Your task to perform on an android device: turn notification dots off Image 0: 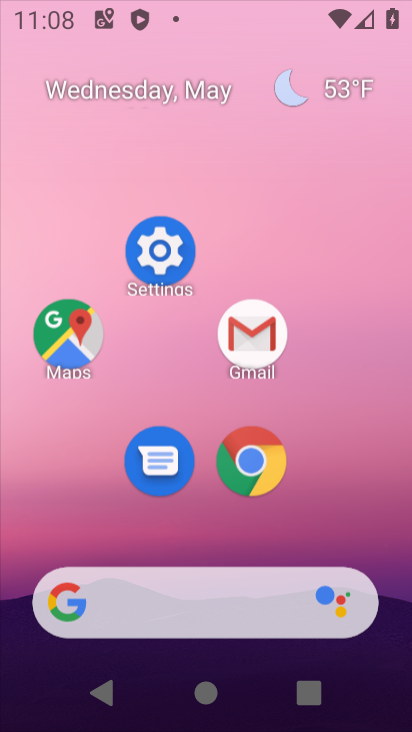
Step 0: click (226, 99)
Your task to perform on an android device: turn notification dots off Image 1: 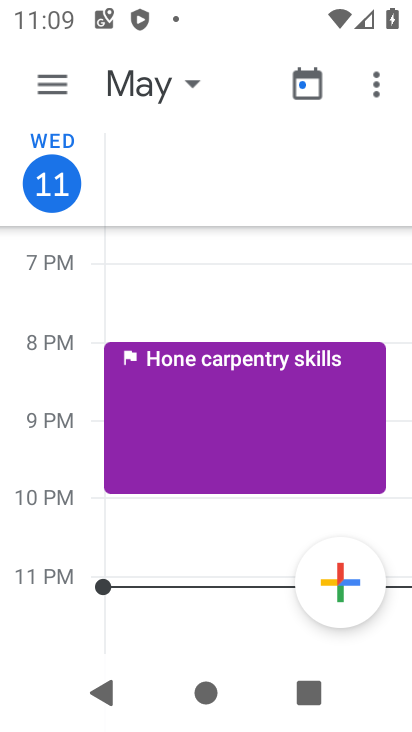
Step 1: drag from (232, 587) to (256, 146)
Your task to perform on an android device: turn notification dots off Image 2: 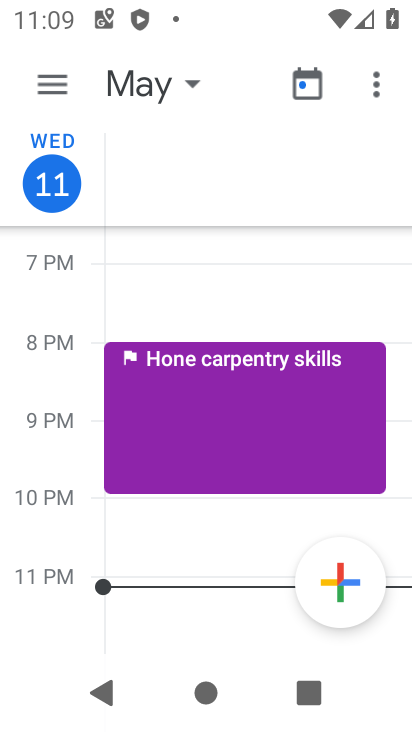
Step 2: press home button
Your task to perform on an android device: turn notification dots off Image 3: 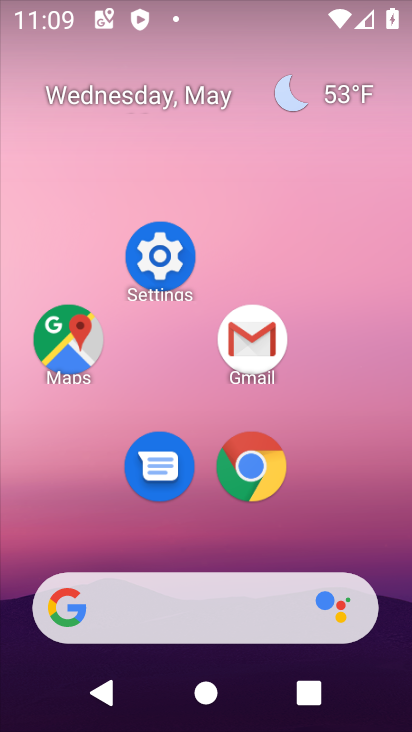
Step 3: click (175, 247)
Your task to perform on an android device: turn notification dots off Image 4: 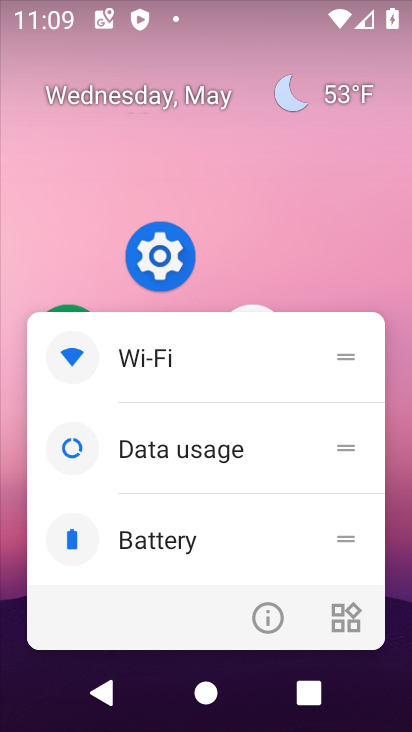
Step 4: click (268, 612)
Your task to perform on an android device: turn notification dots off Image 5: 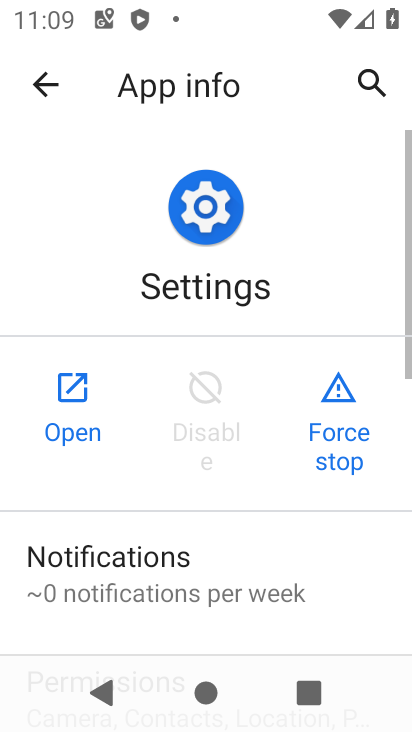
Step 5: drag from (190, 488) to (222, 256)
Your task to perform on an android device: turn notification dots off Image 6: 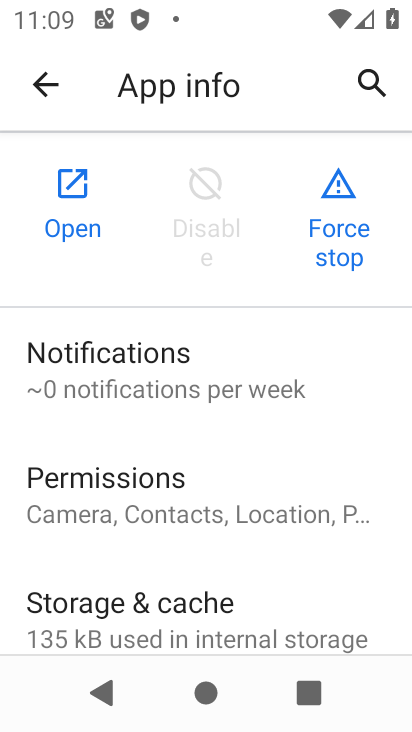
Step 6: click (64, 227)
Your task to perform on an android device: turn notification dots off Image 7: 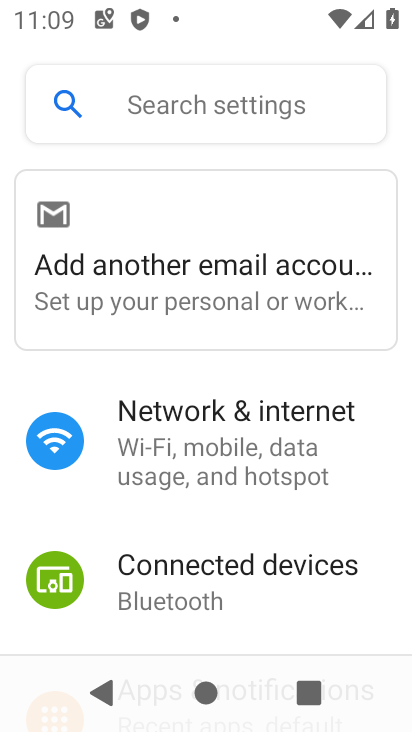
Step 7: drag from (284, 628) to (280, 123)
Your task to perform on an android device: turn notification dots off Image 8: 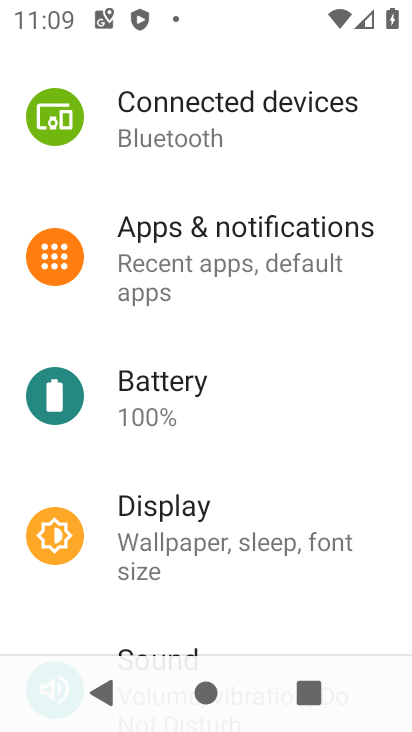
Step 8: click (186, 282)
Your task to perform on an android device: turn notification dots off Image 9: 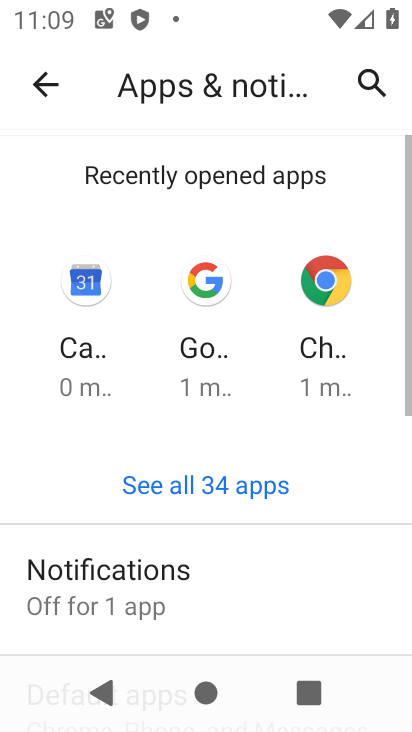
Step 9: drag from (191, 527) to (257, 186)
Your task to perform on an android device: turn notification dots off Image 10: 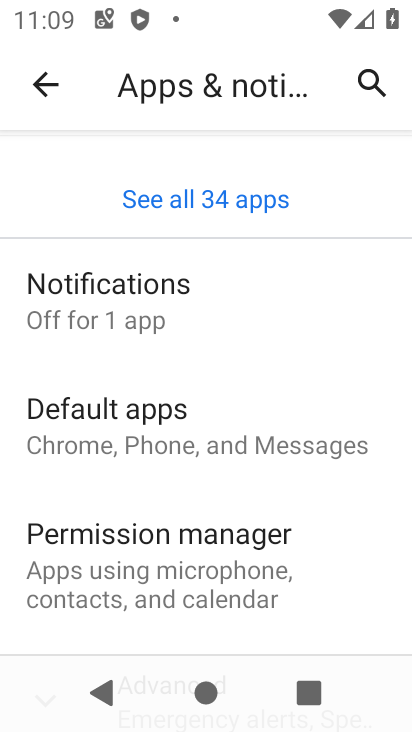
Step 10: click (134, 292)
Your task to perform on an android device: turn notification dots off Image 11: 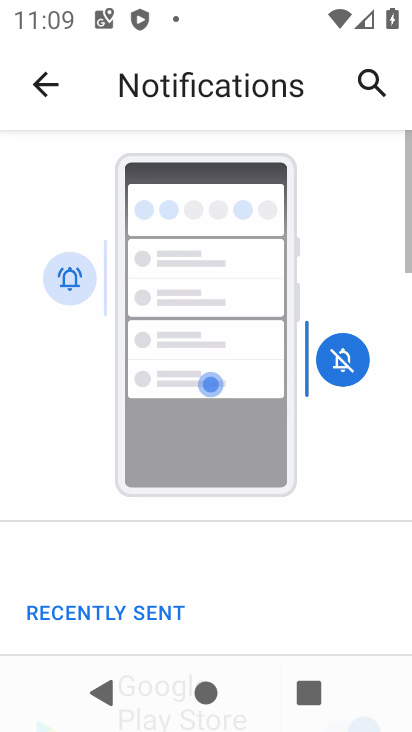
Step 11: drag from (236, 585) to (272, 244)
Your task to perform on an android device: turn notification dots off Image 12: 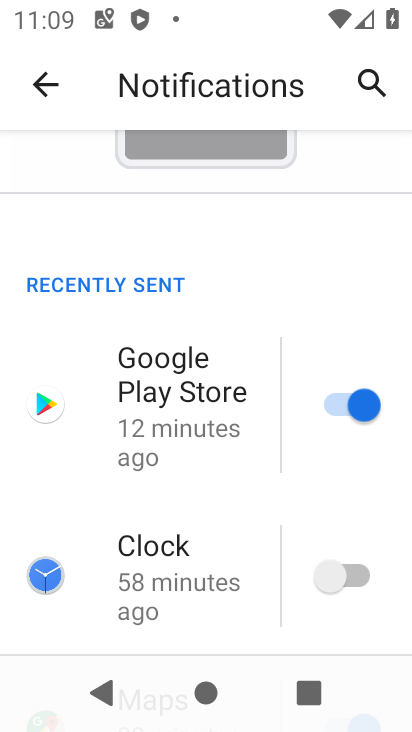
Step 12: drag from (262, 574) to (315, 196)
Your task to perform on an android device: turn notification dots off Image 13: 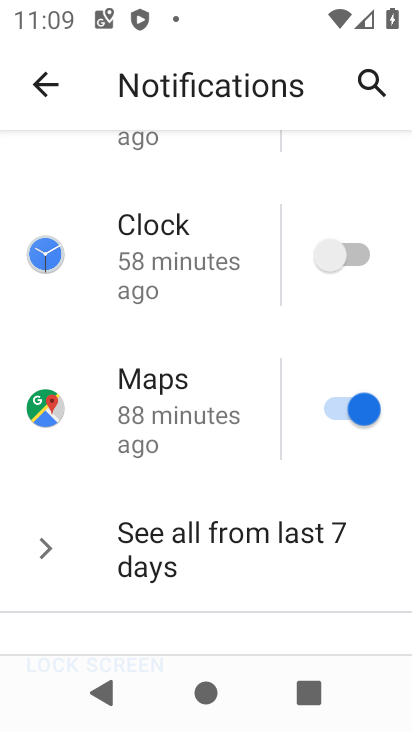
Step 13: drag from (288, 565) to (352, 167)
Your task to perform on an android device: turn notification dots off Image 14: 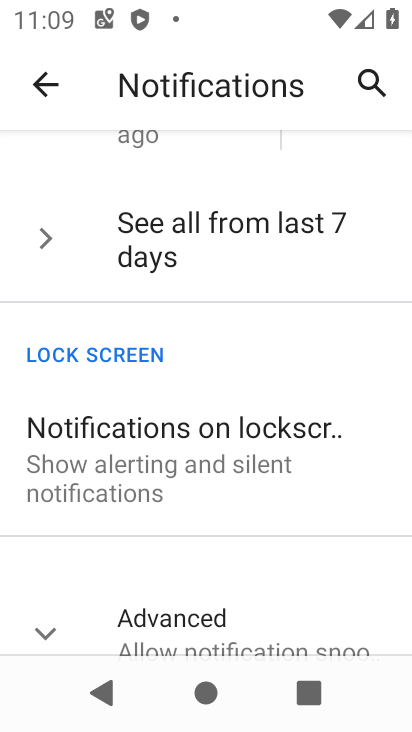
Step 14: drag from (164, 616) to (237, 284)
Your task to perform on an android device: turn notification dots off Image 15: 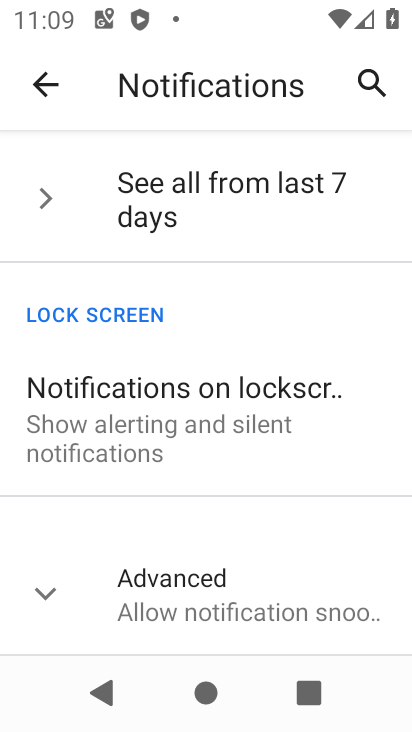
Step 15: click (113, 620)
Your task to perform on an android device: turn notification dots off Image 16: 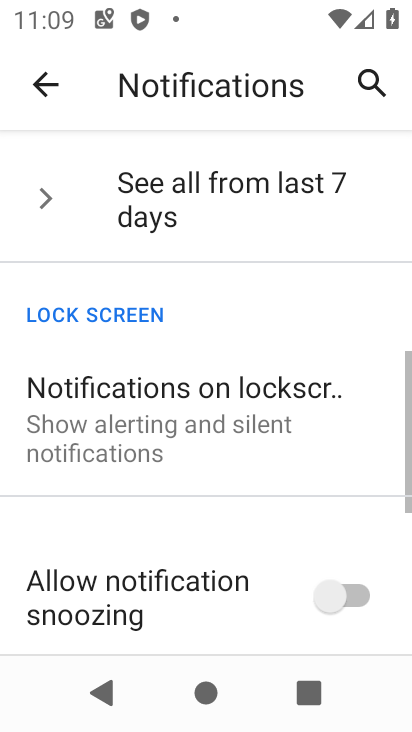
Step 16: drag from (137, 535) to (231, 234)
Your task to perform on an android device: turn notification dots off Image 17: 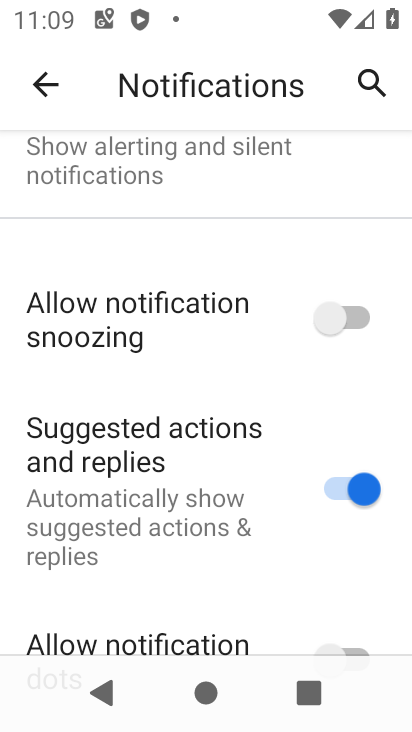
Step 17: drag from (271, 610) to (283, 113)
Your task to perform on an android device: turn notification dots off Image 18: 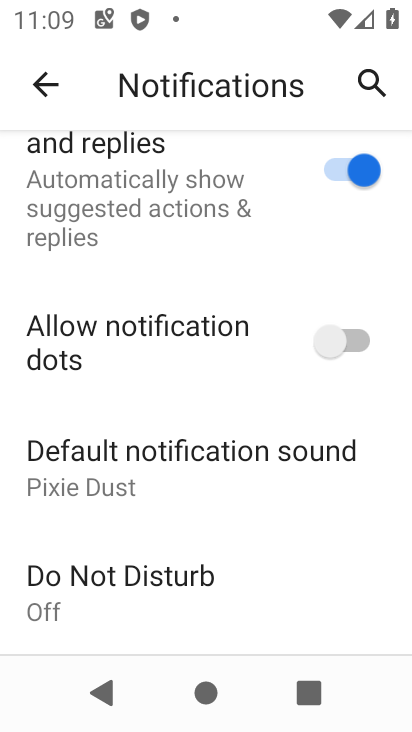
Step 18: click (321, 337)
Your task to perform on an android device: turn notification dots off Image 19: 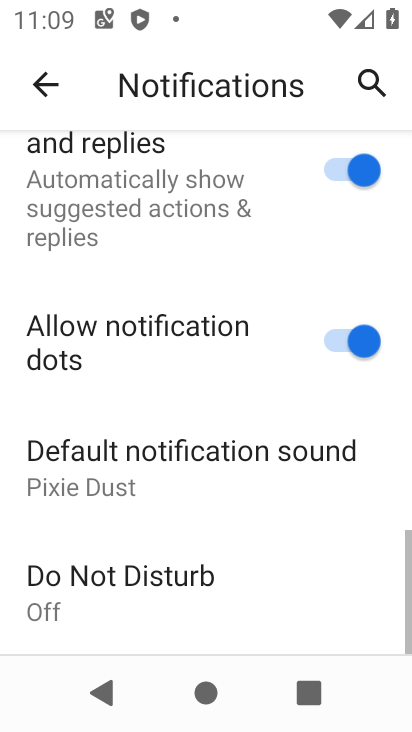
Step 19: click (321, 337)
Your task to perform on an android device: turn notification dots off Image 20: 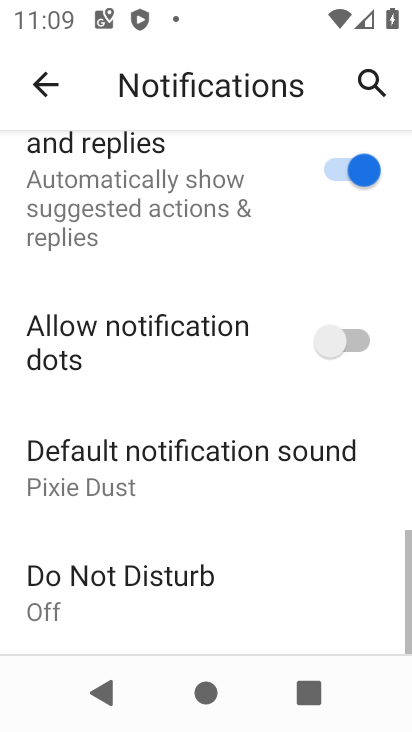
Step 20: task complete